Your task to perform on an android device: open sync settings in chrome Image 0: 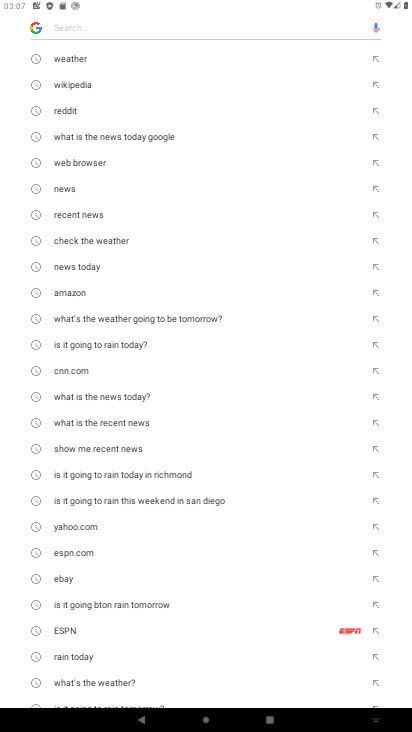
Step 0: press home button
Your task to perform on an android device: open sync settings in chrome Image 1: 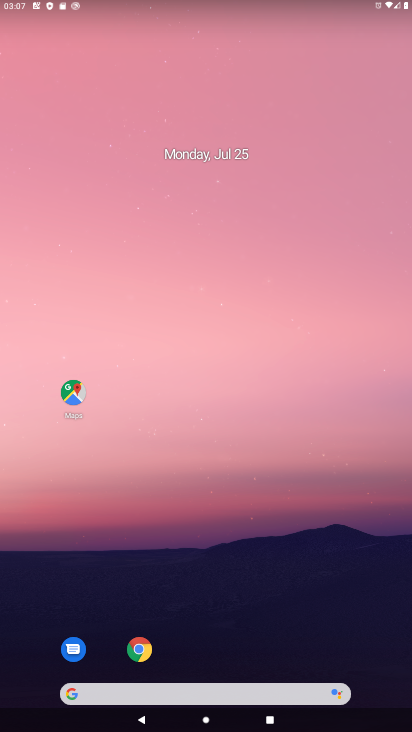
Step 1: click (137, 652)
Your task to perform on an android device: open sync settings in chrome Image 2: 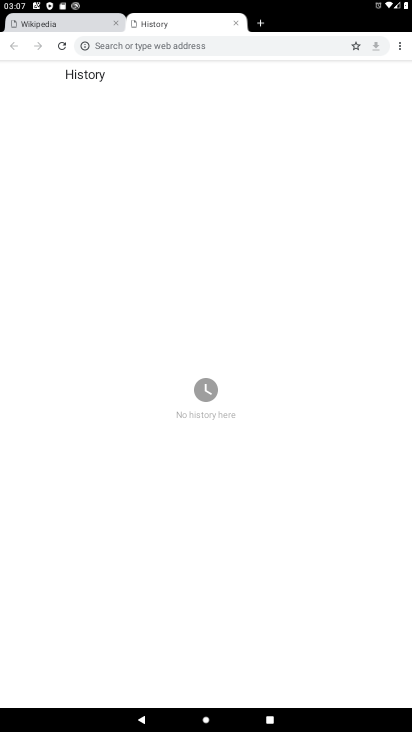
Step 2: click (400, 49)
Your task to perform on an android device: open sync settings in chrome Image 3: 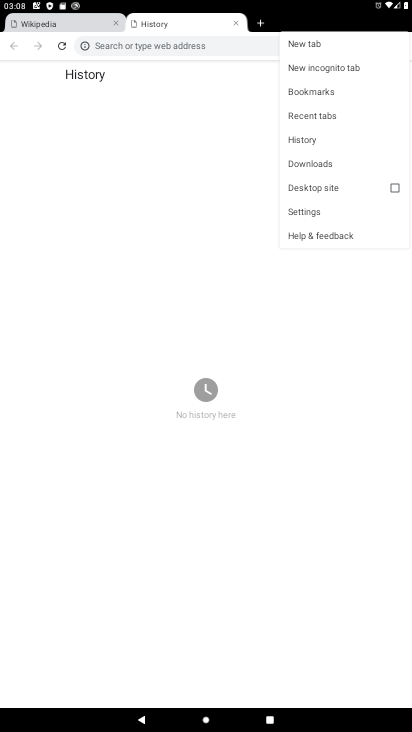
Step 3: click (313, 202)
Your task to perform on an android device: open sync settings in chrome Image 4: 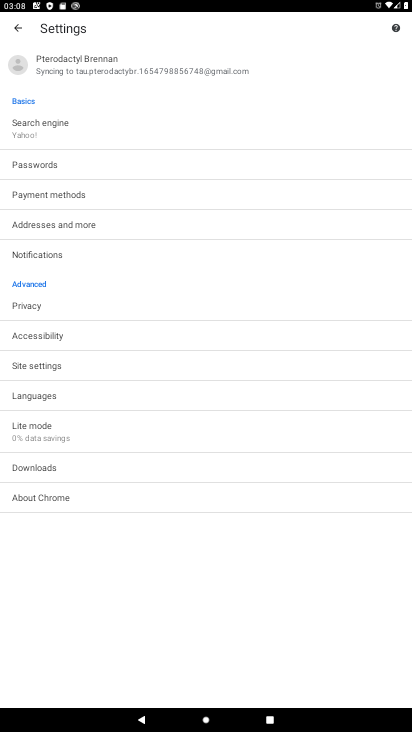
Step 4: click (71, 64)
Your task to perform on an android device: open sync settings in chrome Image 5: 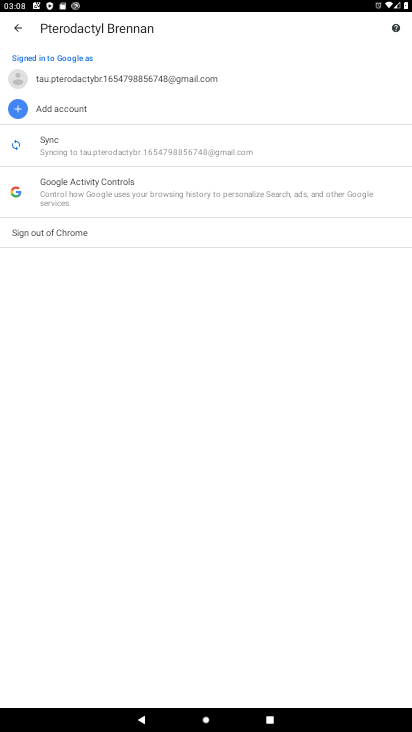
Step 5: click (41, 141)
Your task to perform on an android device: open sync settings in chrome Image 6: 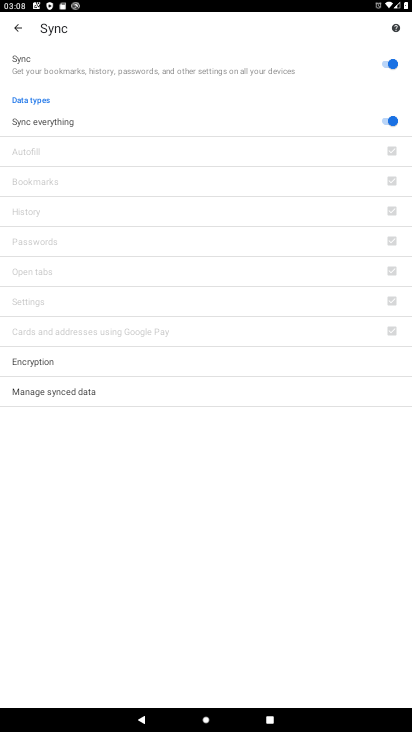
Step 6: task complete